Your task to perform on an android device: turn off smart reply in the gmail app Image 0: 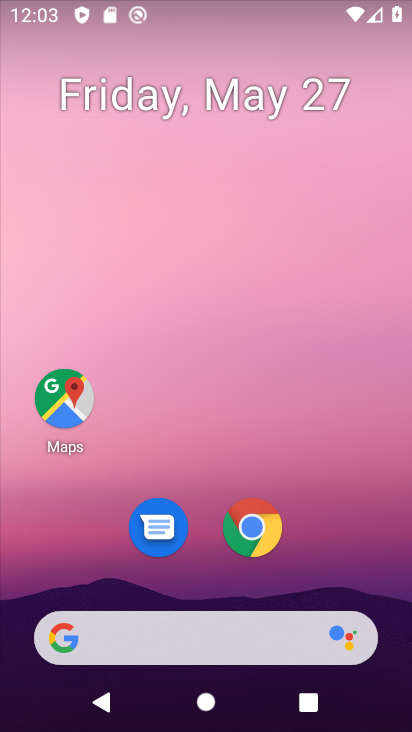
Step 0: drag from (162, 717) to (158, 94)
Your task to perform on an android device: turn off smart reply in the gmail app Image 1: 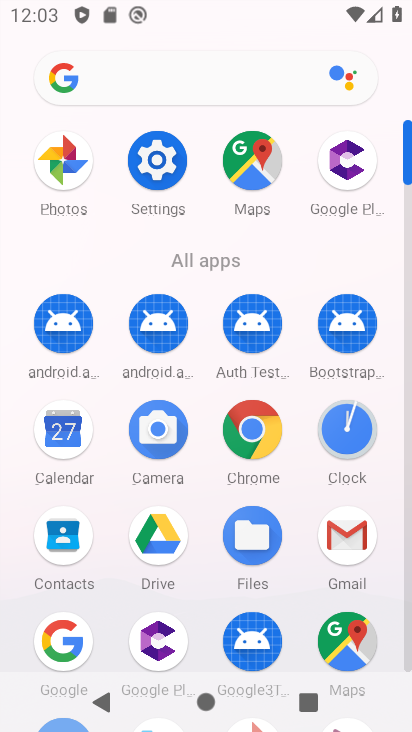
Step 1: click (346, 556)
Your task to perform on an android device: turn off smart reply in the gmail app Image 2: 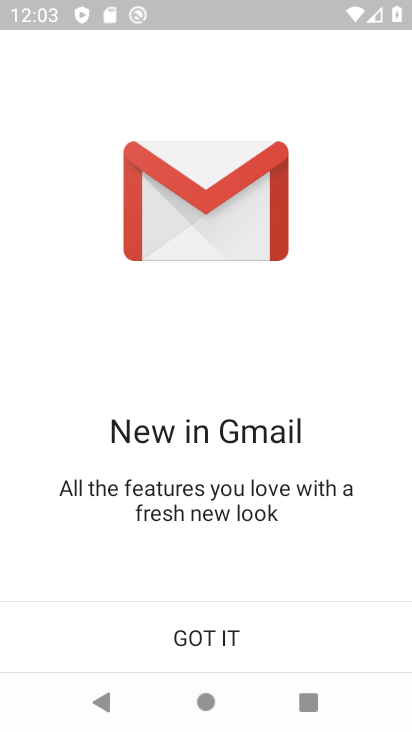
Step 2: click (262, 637)
Your task to perform on an android device: turn off smart reply in the gmail app Image 3: 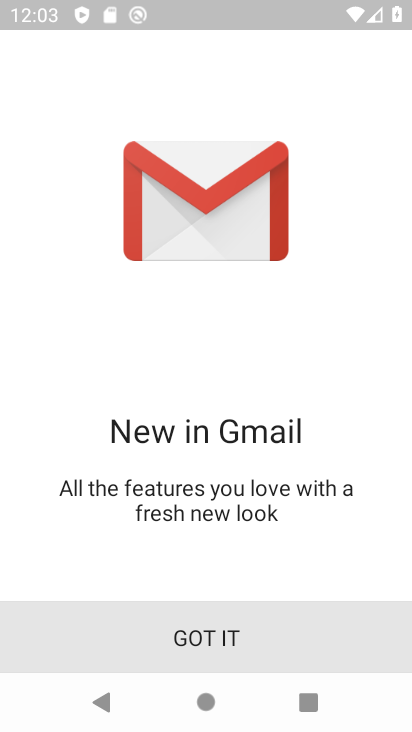
Step 3: click (262, 637)
Your task to perform on an android device: turn off smart reply in the gmail app Image 4: 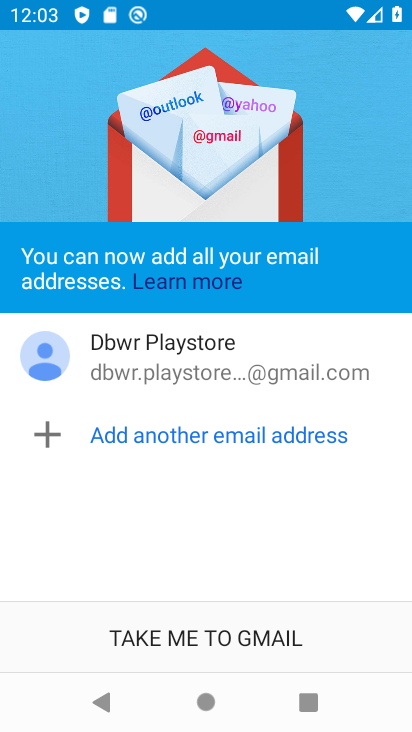
Step 4: click (262, 637)
Your task to perform on an android device: turn off smart reply in the gmail app Image 5: 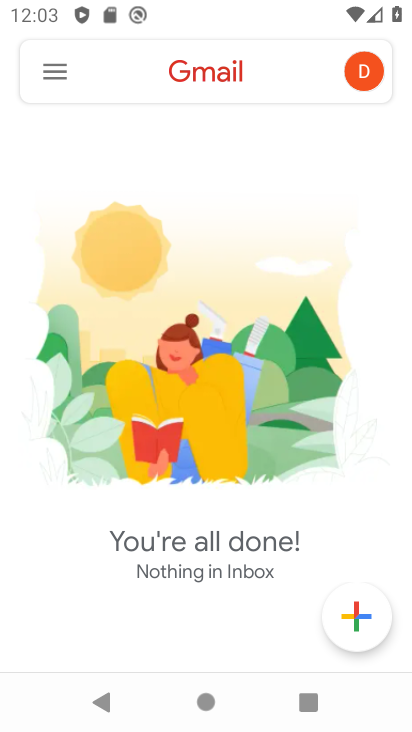
Step 5: click (60, 73)
Your task to perform on an android device: turn off smart reply in the gmail app Image 6: 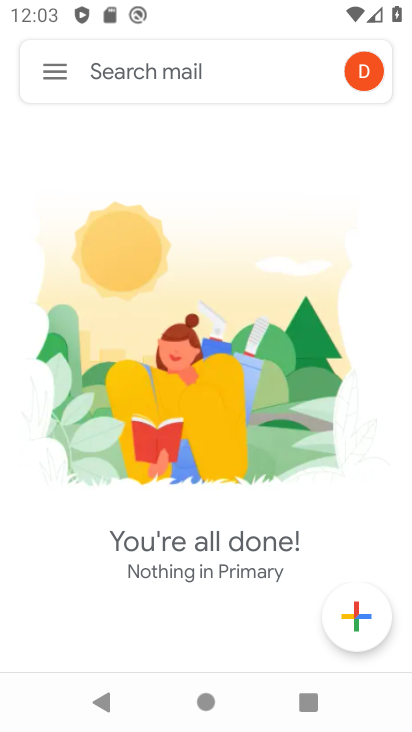
Step 6: click (53, 67)
Your task to perform on an android device: turn off smart reply in the gmail app Image 7: 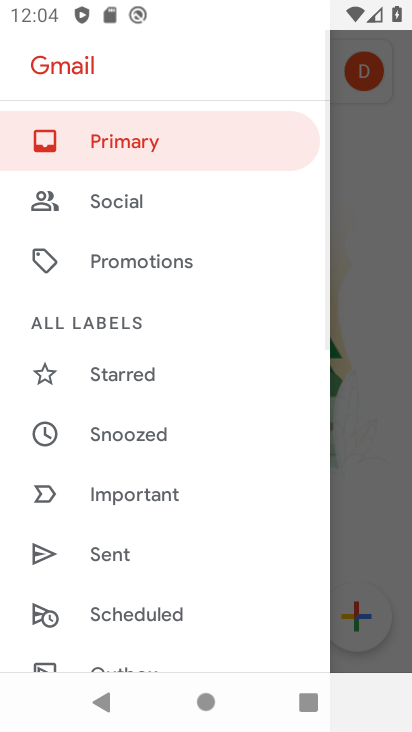
Step 7: drag from (151, 604) to (103, 97)
Your task to perform on an android device: turn off smart reply in the gmail app Image 8: 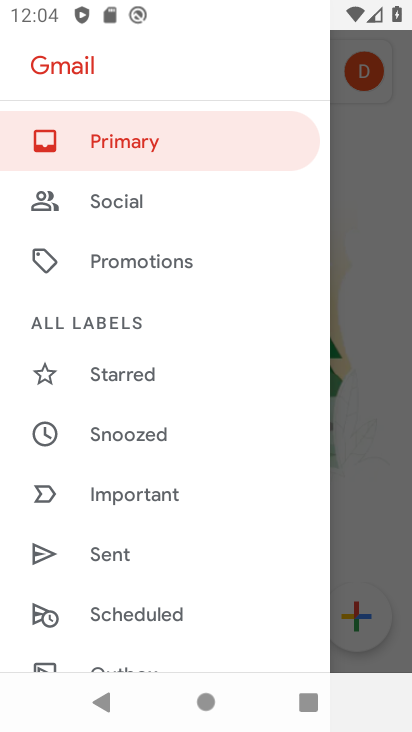
Step 8: drag from (252, 552) to (171, 13)
Your task to perform on an android device: turn off smart reply in the gmail app Image 9: 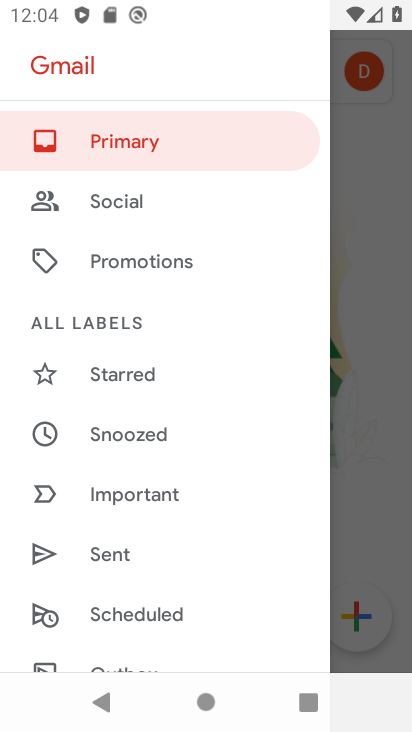
Step 9: drag from (103, 612) to (115, 75)
Your task to perform on an android device: turn off smart reply in the gmail app Image 10: 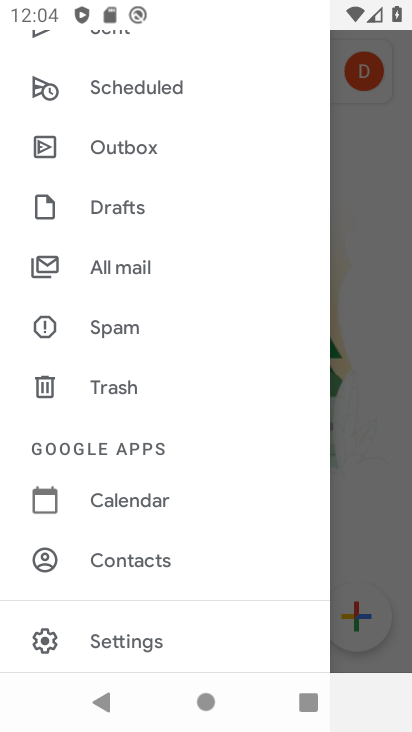
Step 10: drag from (174, 544) to (235, 108)
Your task to perform on an android device: turn off smart reply in the gmail app Image 11: 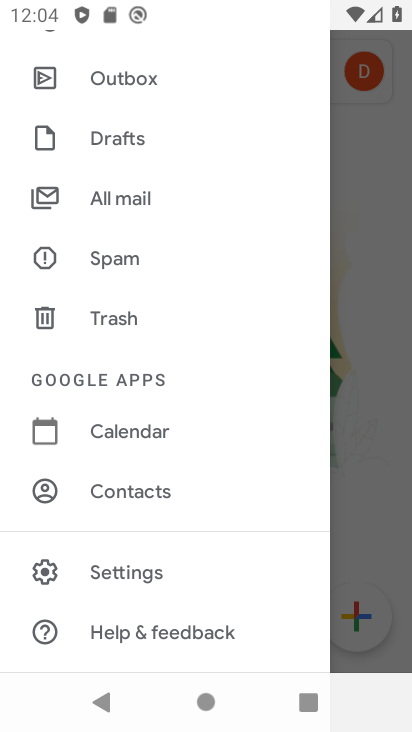
Step 11: click (188, 563)
Your task to perform on an android device: turn off smart reply in the gmail app Image 12: 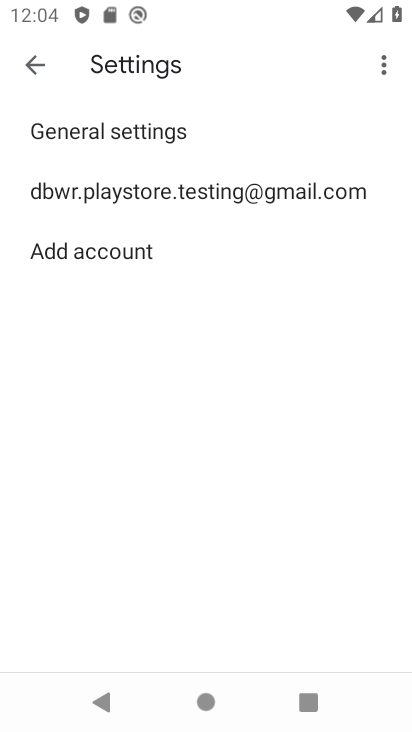
Step 12: click (167, 192)
Your task to perform on an android device: turn off smart reply in the gmail app Image 13: 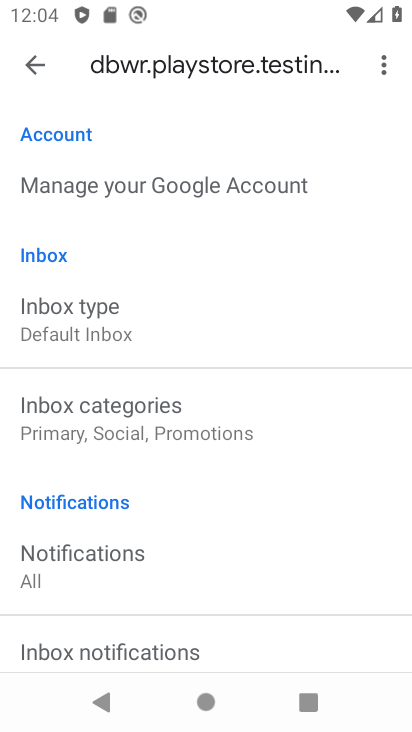
Step 13: drag from (244, 482) to (222, 202)
Your task to perform on an android device: turn off smart reply in the gmail app Image 14: 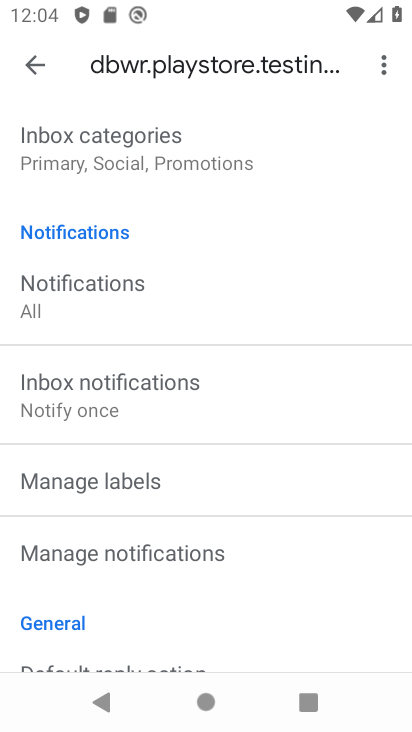
Step 14: drag from (304, 545) to (274, 222)
Your task to perform on an android device: turn off smart reply in the gmail app Image 15: 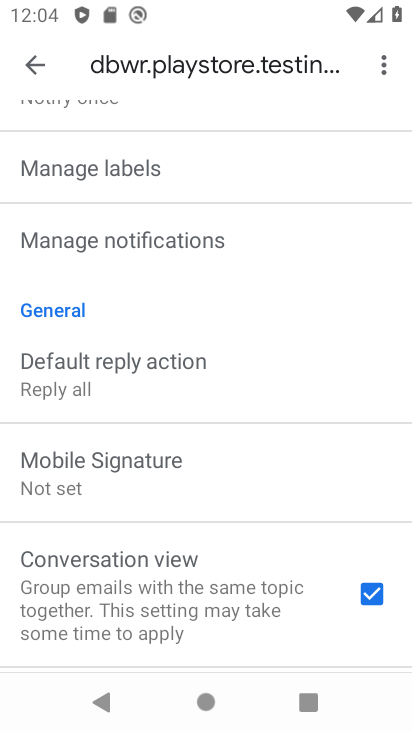
Step 15: drag from (242, 412) to (242, 207)
Your task to perform on an android device: turn off smart reply in the gmail app Image 16: 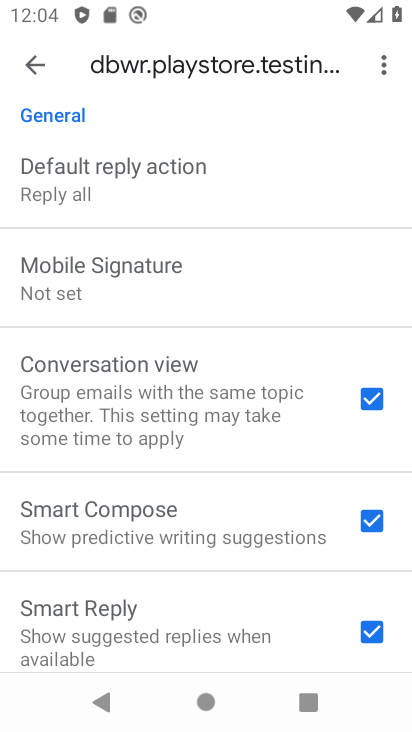
Step 16: click (378, 636)
Your task to perform on an android device: turn off smart reply in the gmail app Image 17: 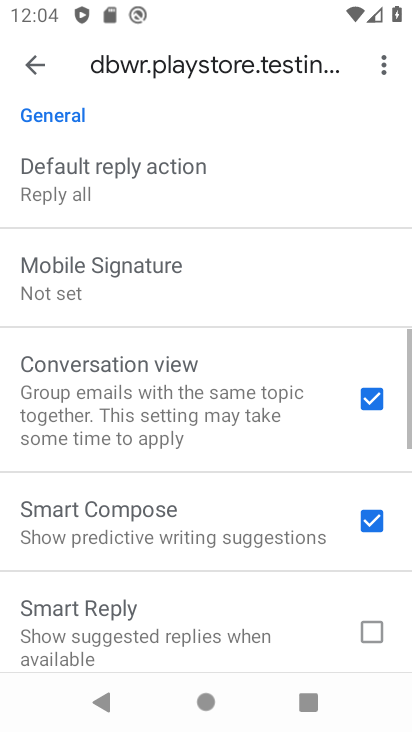
Step 17: task complete